Your task to perform on an android device: What's on my calendar today? Image 0: 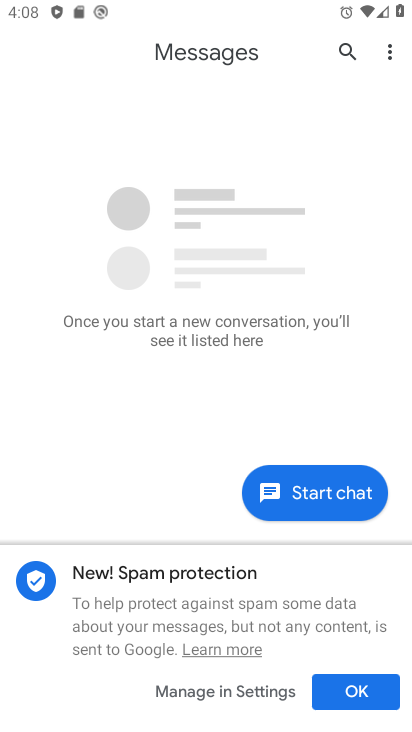
Step 0: press home button
Your task to perform on an android device: What's on my calendar today? Image 1: 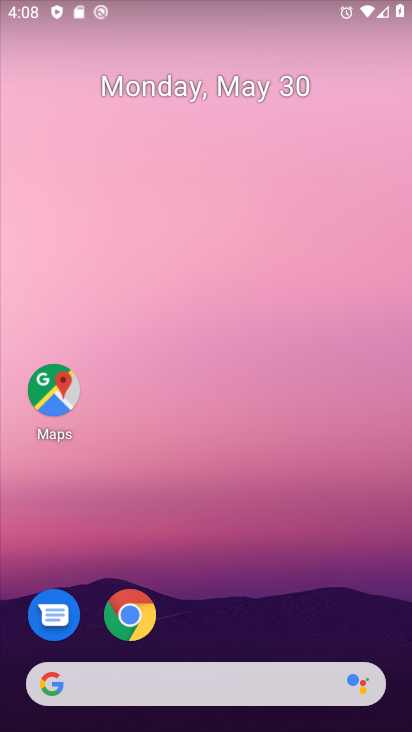
Step 1: drag from (222, 607) to (313, 36)
Your task to perform on an android device: What's on my calendar today? Image 2: 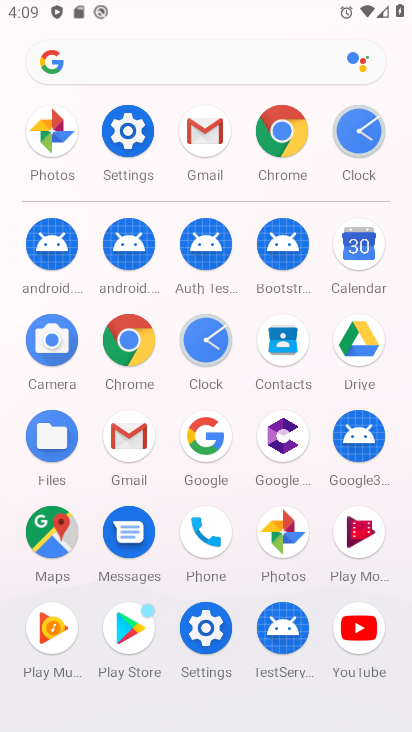
Step 2: click (354, 248)
Your task to perform on an android device: What's on my calendar today? Image 3: 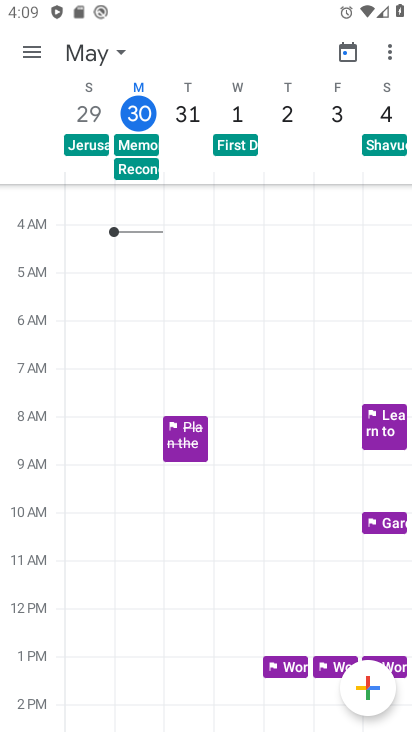
Step 3: click (139, 110)
Your task to perform on an android device: What's on my calendar today? Image 4: 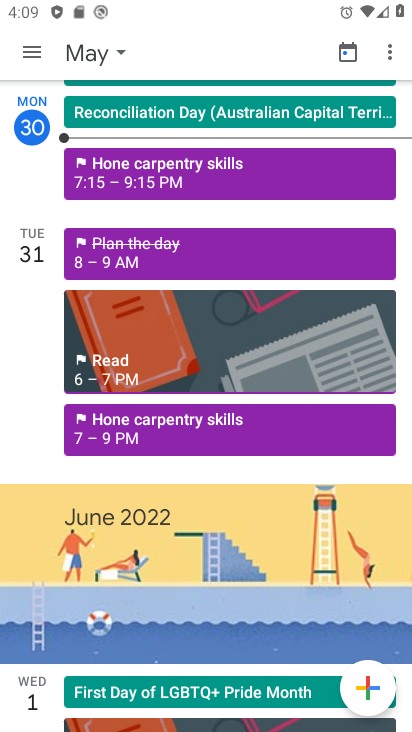
Step 4: task complete